Your task to perform on an android device: Open calendar and show me the fourth week of next month Image 0: 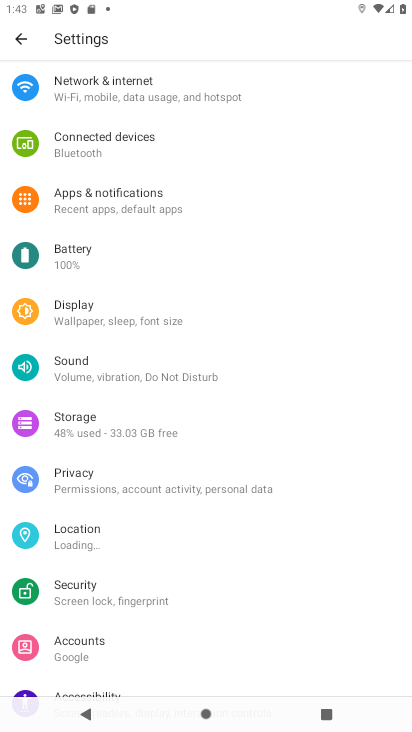
Step 0: press home button
Your task to perform on an android device: Open calendar and show me the fourth week of next month Image 1: 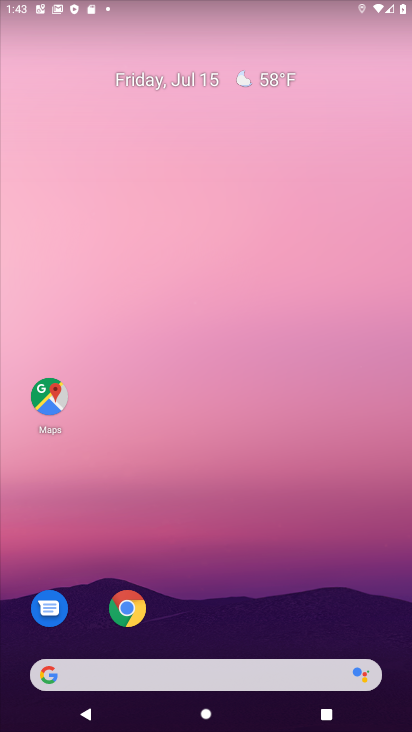
Step 1: drag from (221, 604) to (221, 156)
Your task to perform on an android device: Open calendar and show me the fourth week of next month Image 2: 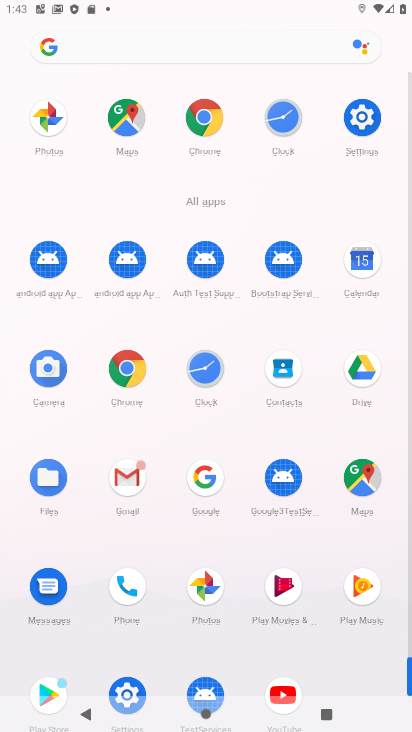
Step 2: click (362, 262)
Your task to perform on an android device: Open calendar and show me the fourth week of next month Image 3: 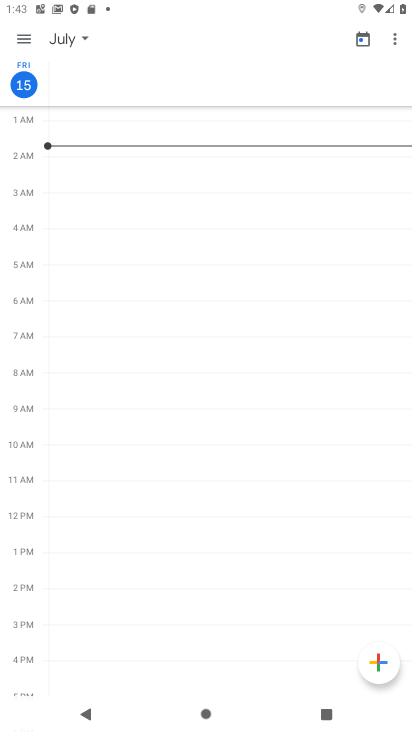
Step 3: click (83, 47)
Your task to perform on an android device: Open calendar and show me the fourth week of next month Image 4: 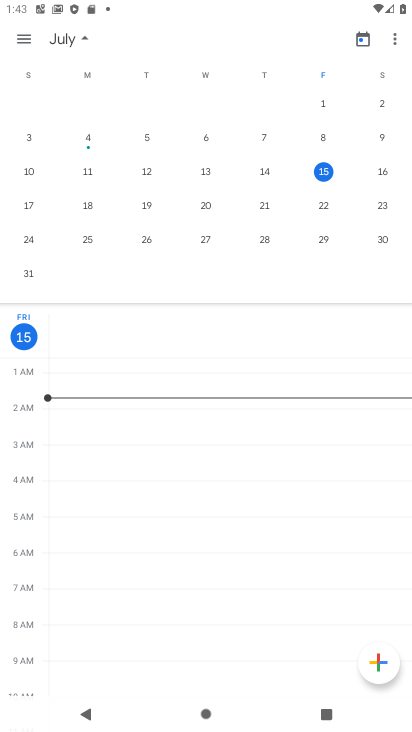
Step 4: drag from (358, 202) to (38, 190)
Your task to perform on an android device: Open calendar and show me the fourth week of next month Image 5: 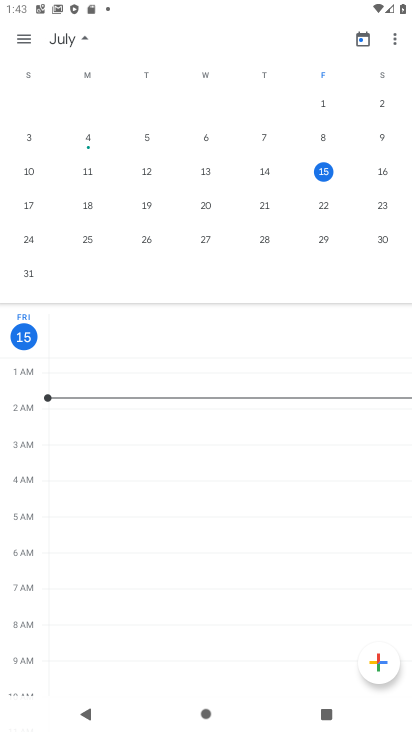
Step 5: drag from (350, 158) to (11, 146)
Your task to perform on an android device: Open calendar and show me the fourth week of next month Image 6: 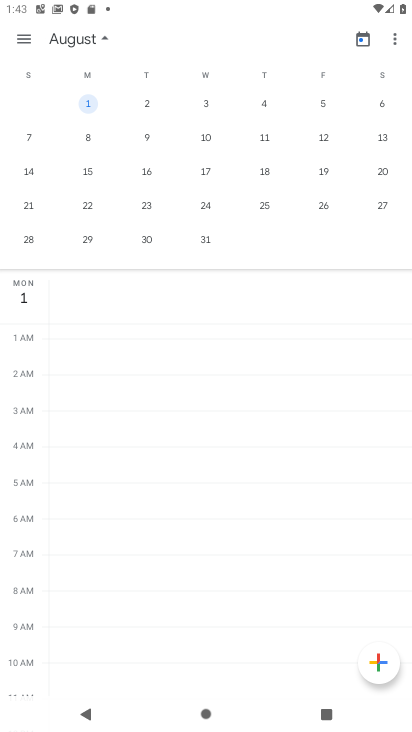
Step 6: click (386, 197)
Your task to perform on an android device: Open calendar and show me the fourth week of next month Image 7: 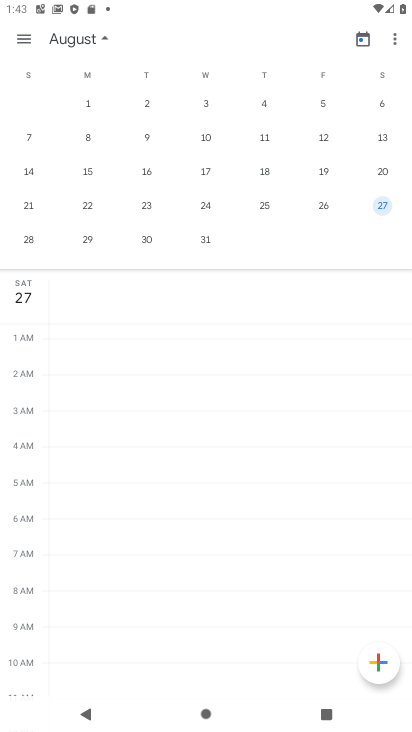
Step 7: task complete